Your task to perform on an android device: turn on bluetooth scan Image 0: 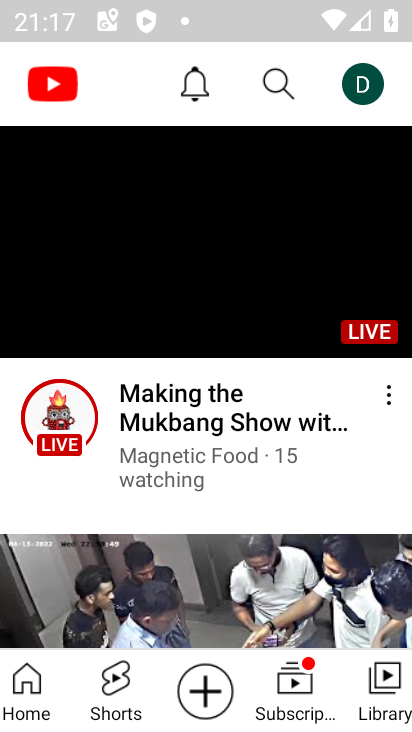
Step 0: press home button
Your task to perform on an android device: turn on bluetooth scan Image 1: 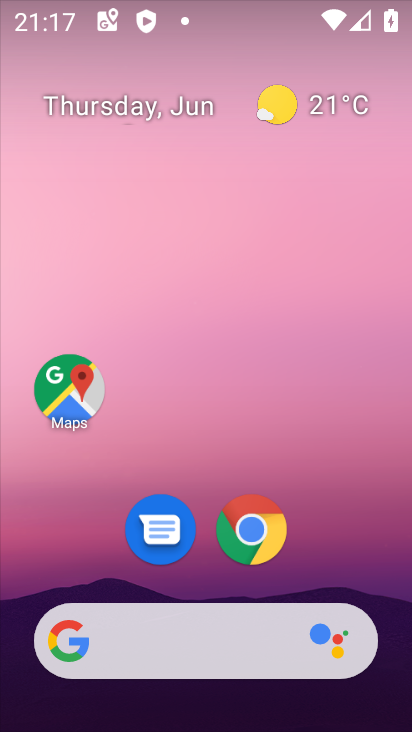
Step 1: drag from (348, 535) to (236, 139)
Your task to perform on an android device: turn on bluetooth scan Image 2: 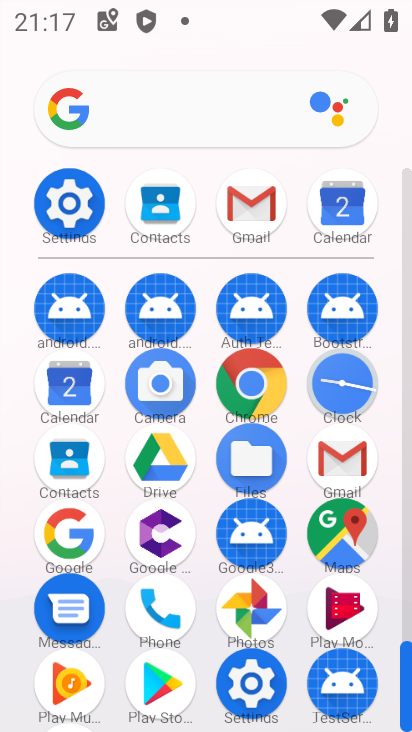
Step 2: click (69, 198)
Your task to perform on an android device: turn on bluetooth scan Image 3: 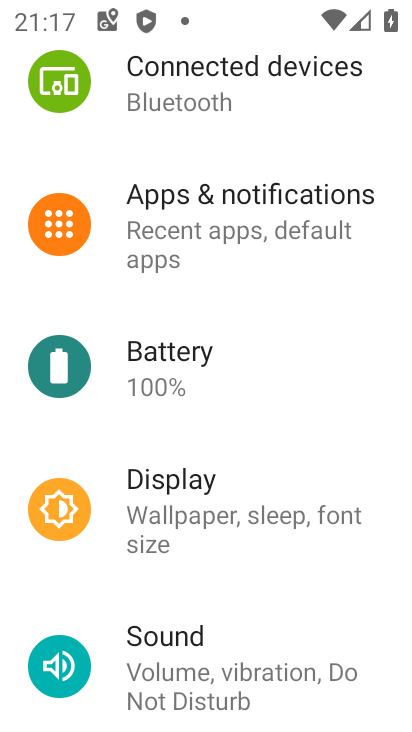
Step 3: drag from (242, 463) to (211, 263)
Your task to perform on an android device: turn on bluetooth scan Image 4: 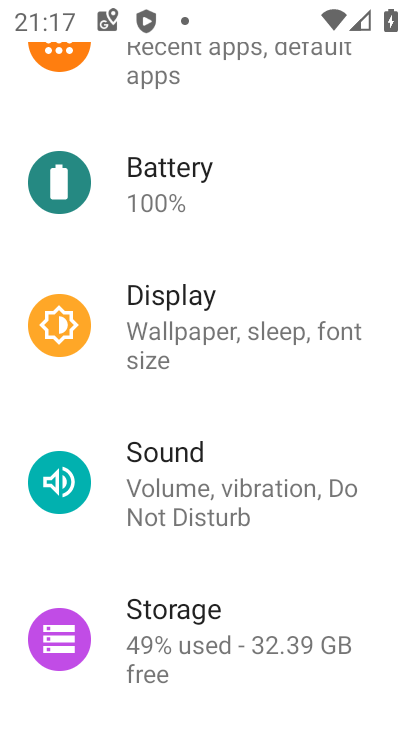
Step 4: drag from (249, 403) to (226, 143)
Your task to perform on an android device: turn on bluetooth scan Image 5: 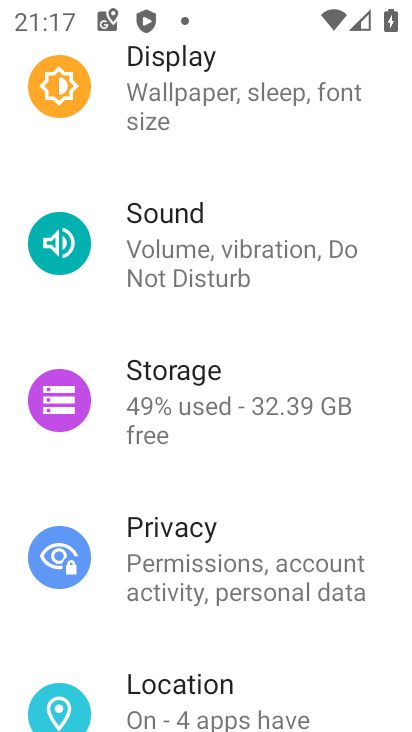
Step 5: drag from (263, 500) to (243, 271)
Your task to perform on an android device: turn on bluetooth scan Image 6: 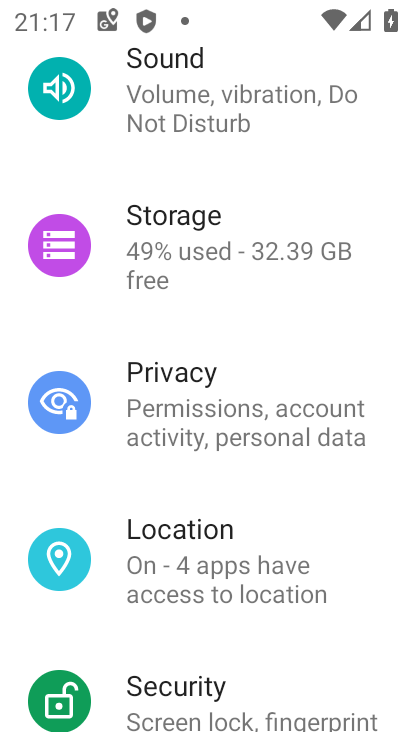
Step 6: click (184, 548)
Your task to perform on an android device: turn on bluetooth scan Image 7: 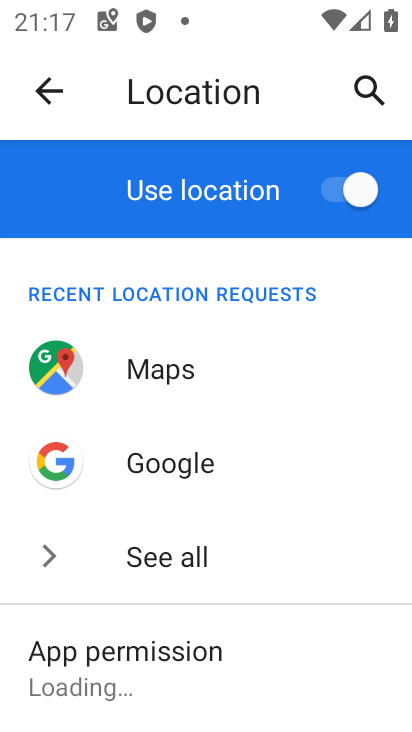
Step 7: drag from (237, 584) to (193, 252)
Your task to perform on an android device: turn on bluetooth scan Image 8: 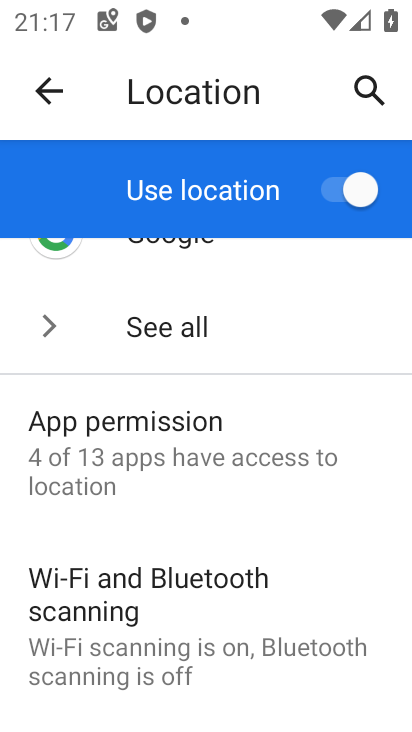
Step 8: click (98, 592)
Your task to perform on an android device: turn on bluetooth scan Image 9: 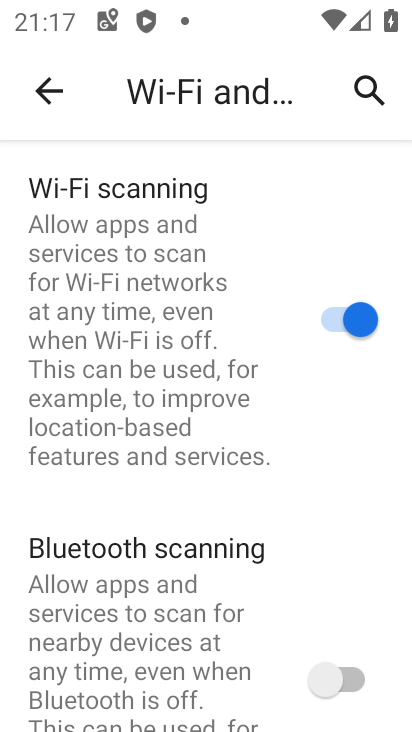
Step 9: click (318, 685)
Your task to perform on an android device: turn on bluetooth scan Image 10: 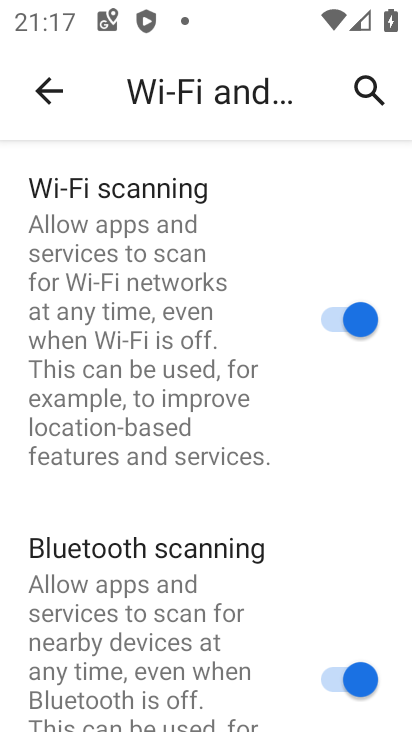
Step 10: task complete